Your task to perform on an android device: Open Android settings Image 0: 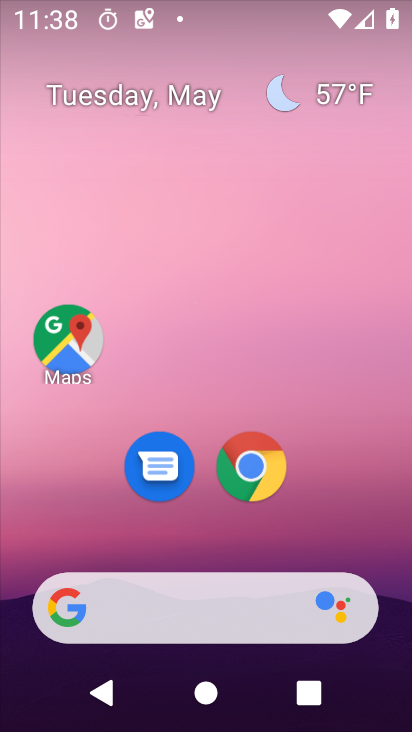
Step 0: click (255, 462)
Your task to perform on an android device: Open Android settings Image 1: 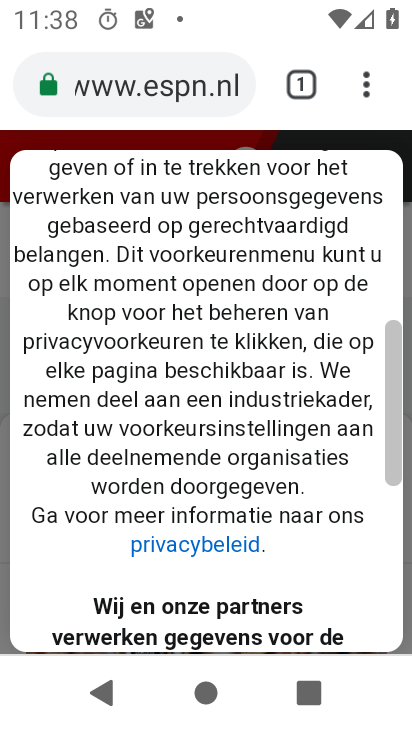
Step 1: task complete